Your task to perform on an android device: Clear the cart on target. Image 0: 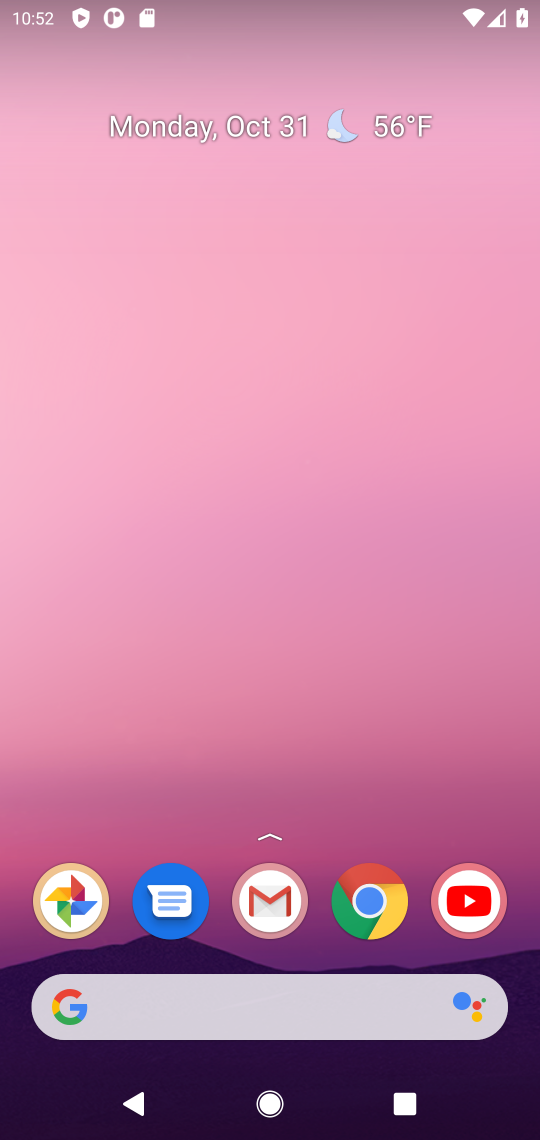
Step 0: drag from (154, 955) to (227, 192)
Your task to perform on an android device: Clear the cart on target. Image 1: 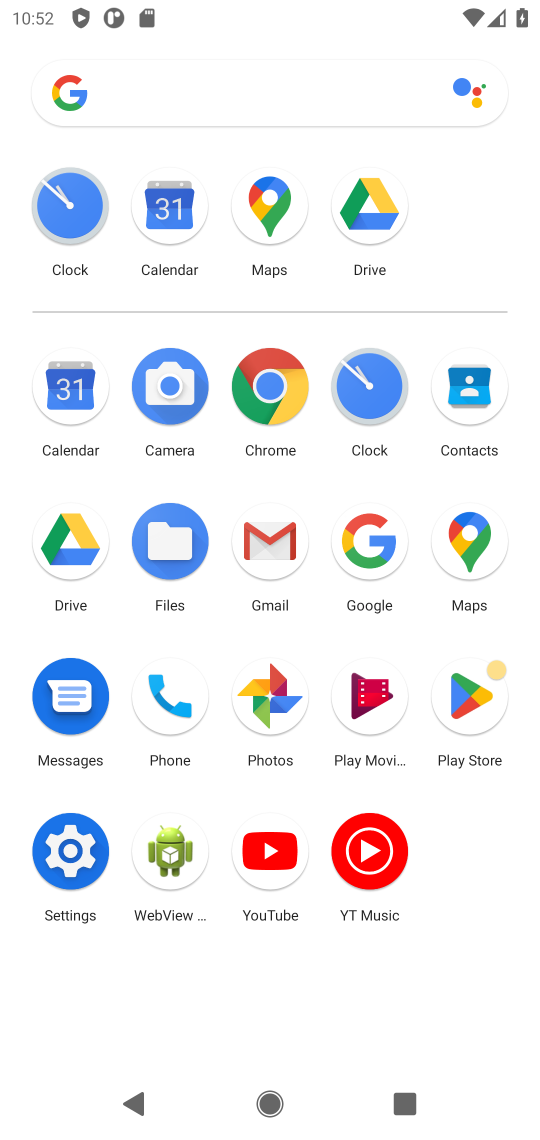
Step 1: click (367, 534)
Your task to perform on an android device: Clear the cart on target. Image 2: 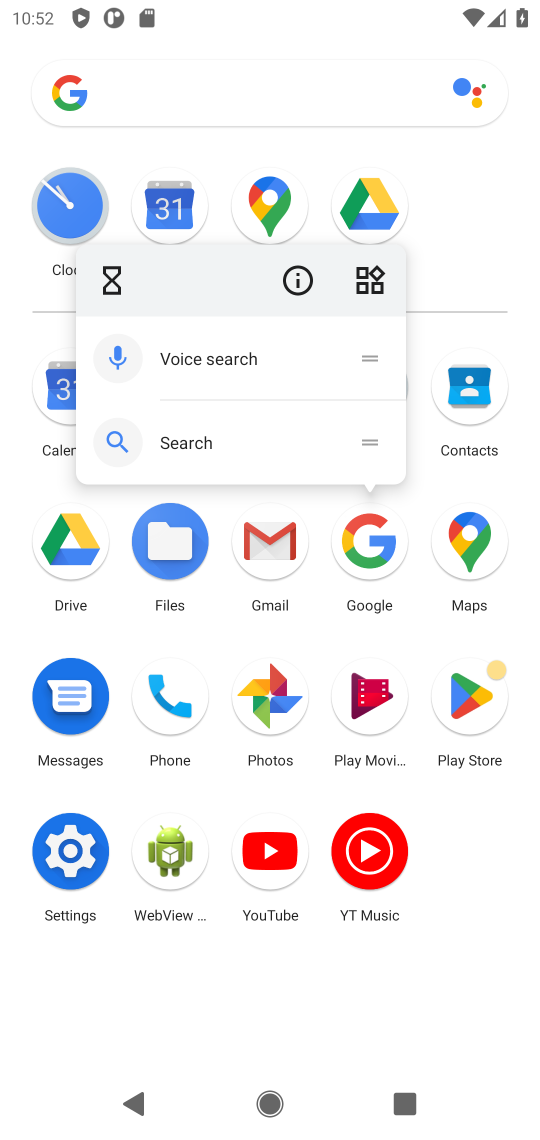
Step 2: click (370, 534)
Your task to perform on an android device: Clear the cart on target. Image 3: 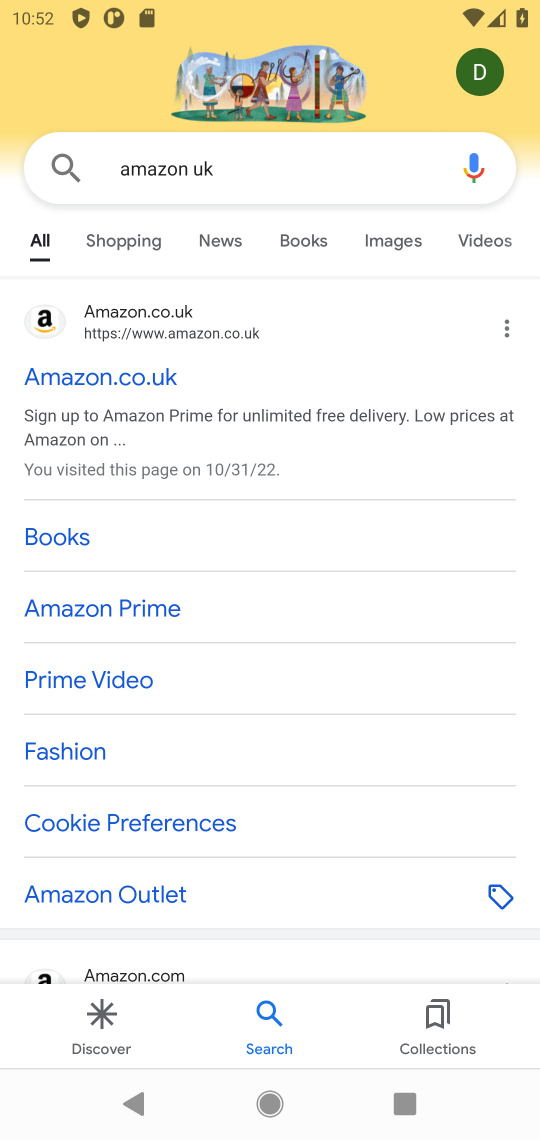
Step 3: click (244, 182)
Your task to perform on an android device: Clear the cart on target. Image 4: 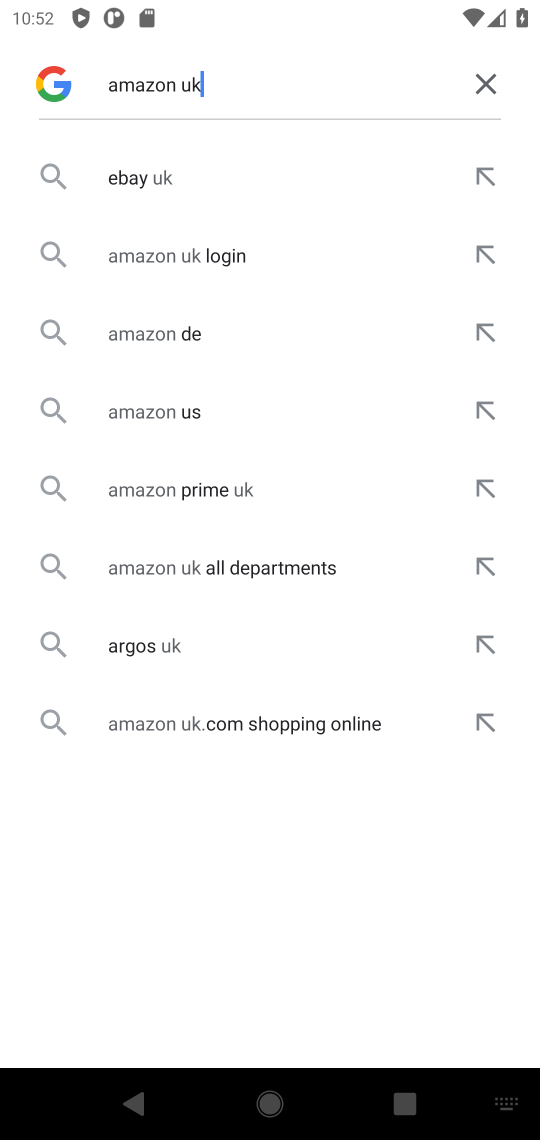
Step 4: click (475, 69)
Your task to perform on an android device: Clear the cart on target. Image 5: 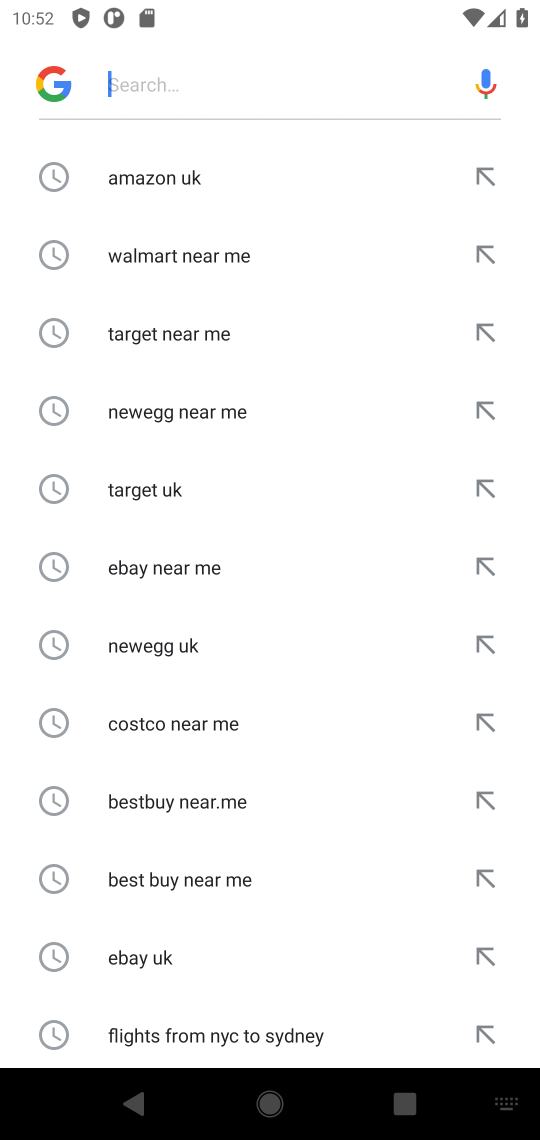
Step 5: click (195, 66)
Your task to perform on an android device: Clear the cart on target. Image 6: 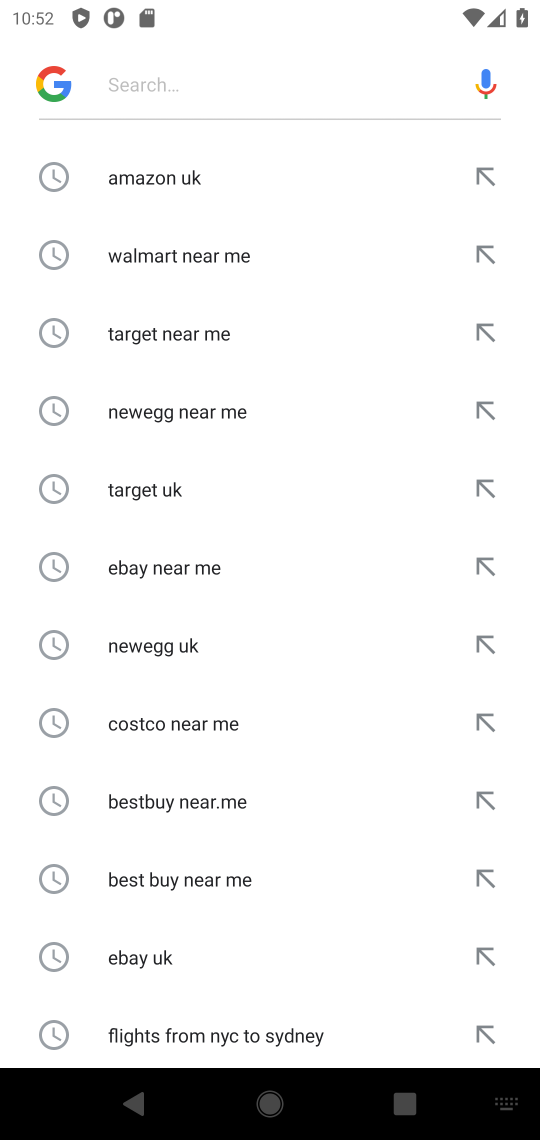
Step 6: type "target "
Your task to perform on an android device: Clear the cart on target. Image 7: 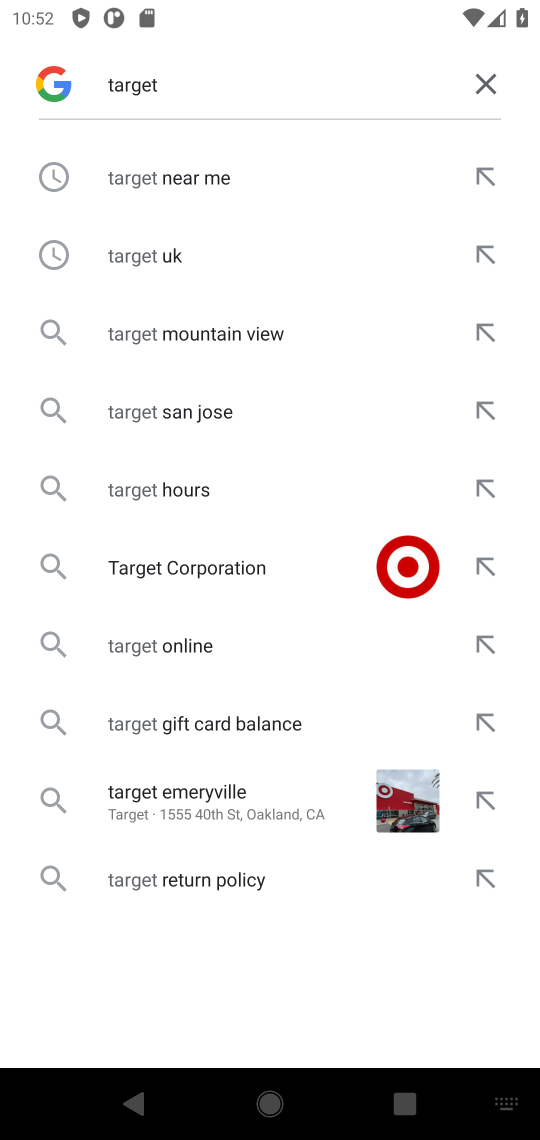
Step 7: click (133, 168)
Your task to perform on an android device: Clear the cart on target. Image 8: 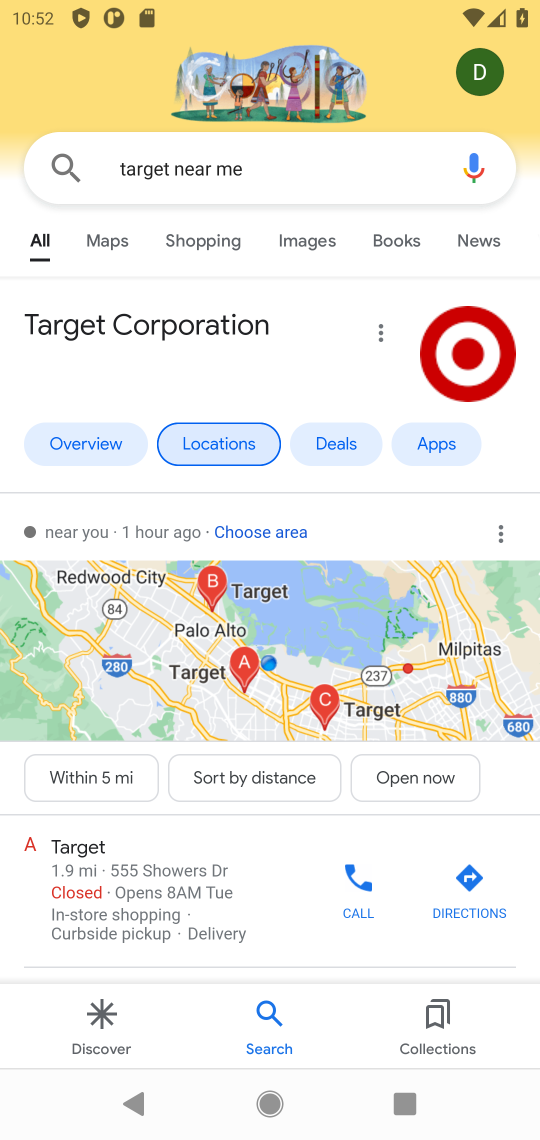
Step 8: drag from (195, 906) to (332, 233)
Your task to perform on an android device: Clear the cart on target. Image 9: 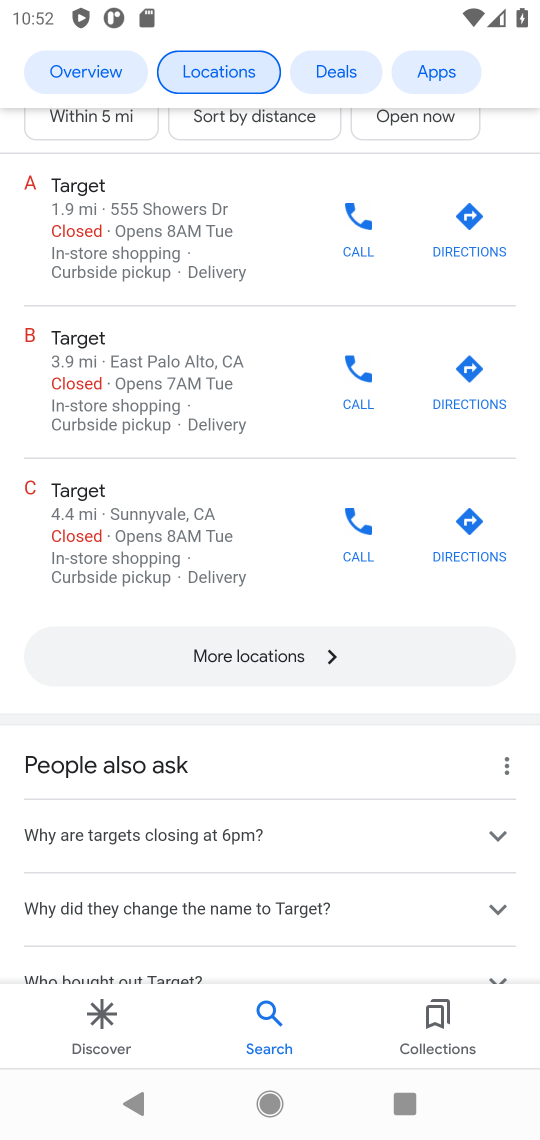
Step 9: drag from (76, 891) to (304, 55)
Your task to perform on an android device: Clear the cart on target. Image 10: 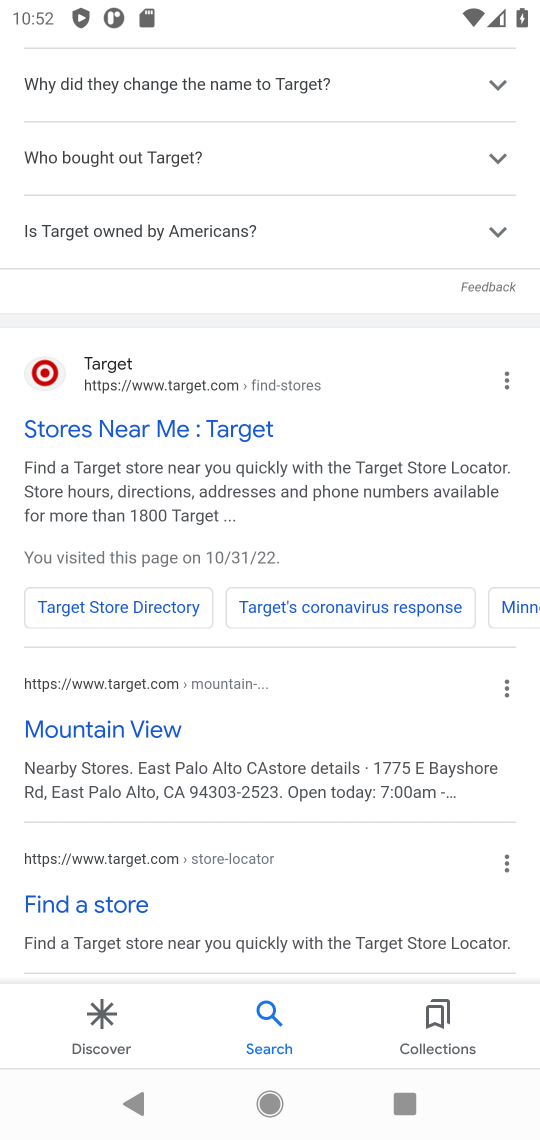
Step 10: click (34, 373)
Your task to perform on an android device: Clear the cart on target. Image 11: 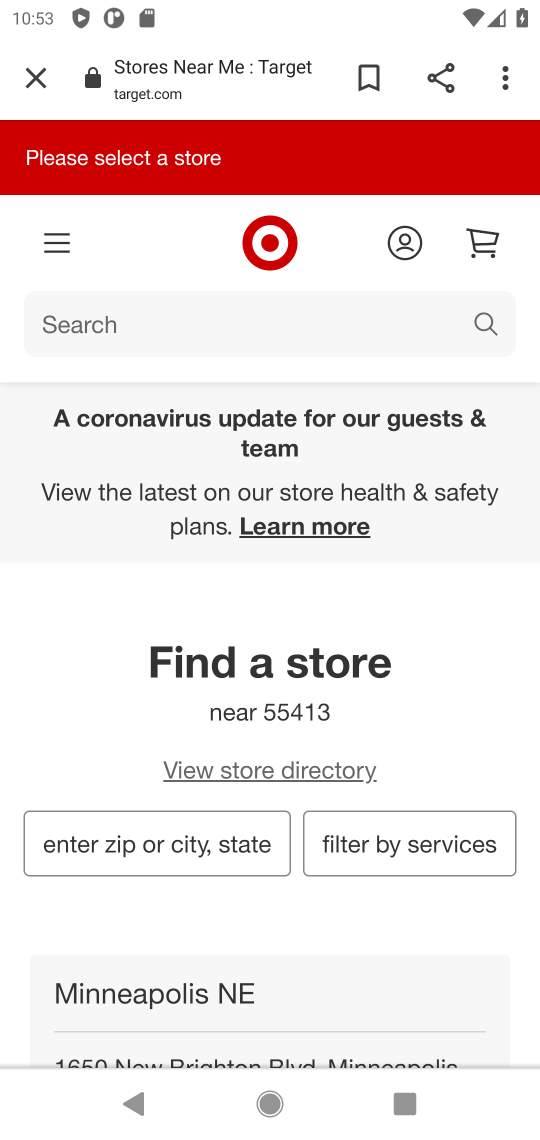
Step 11: click (485, 227)
Your task to perform on an android device: Clear the cart on target. Image 12: 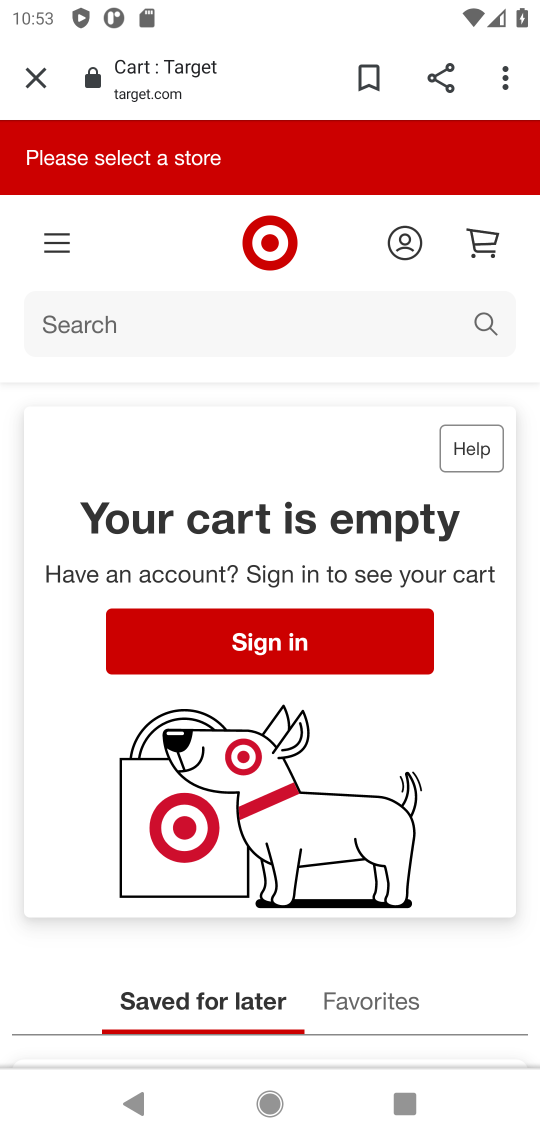
Step 12: task complete